Your task to perform on an android device: Show me productivity apps on the Play Store Image 0: 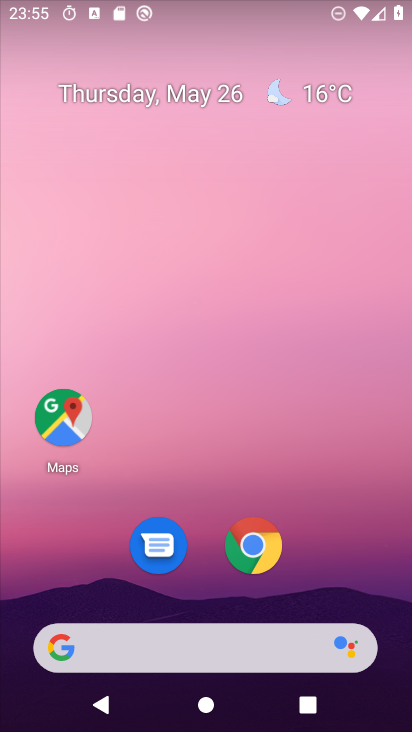
Step 0: press home button
Your task to perform on an android device: Show me productivity apps on the Play Store Image 1: 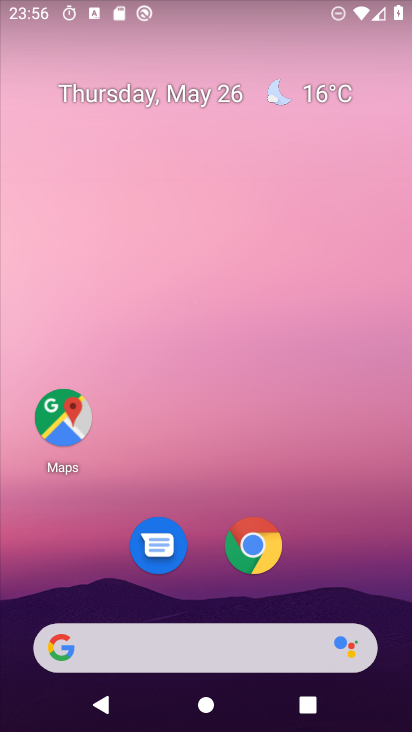
Step 1: drag from (296, 617) to (256, 171)
Your task to perform on an android device: Show me productivity apps on the Play Store Image 2: 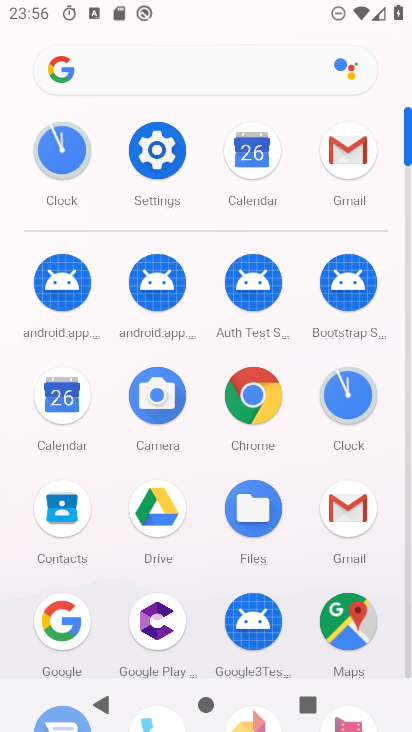
Step 2: drag from (382, 577) to (378, 113)
Your task to perform on an android device: Show me productivity apps on the Play Store Image 3: 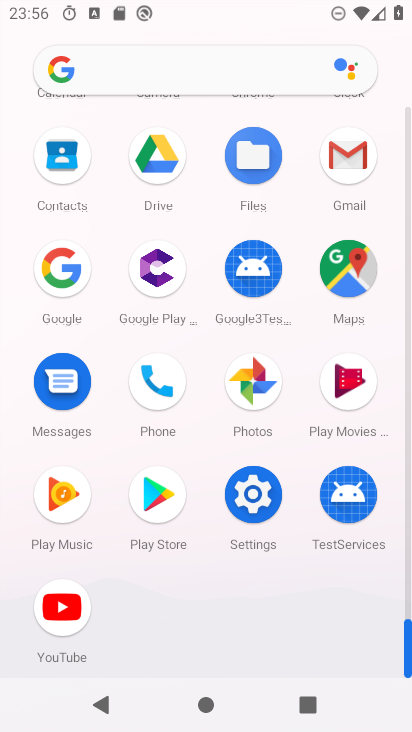
Step 3: click (156, 496)
Your task to perform on an android device: Show me productivity apps on the Play Store Image 4: 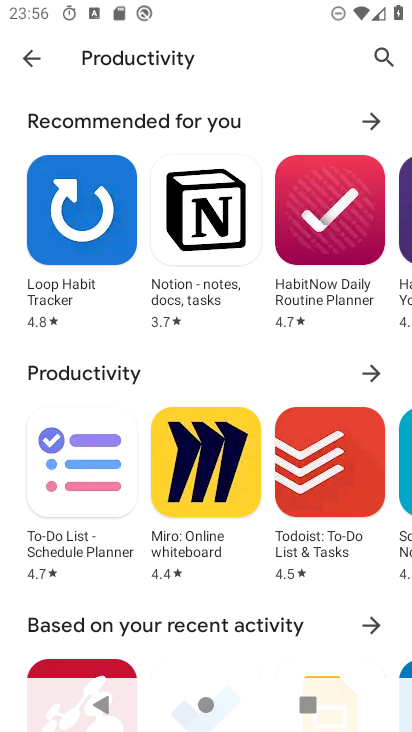
Step 4: task complete